Your task to perform on an android device: Go to Amazon Image 0: 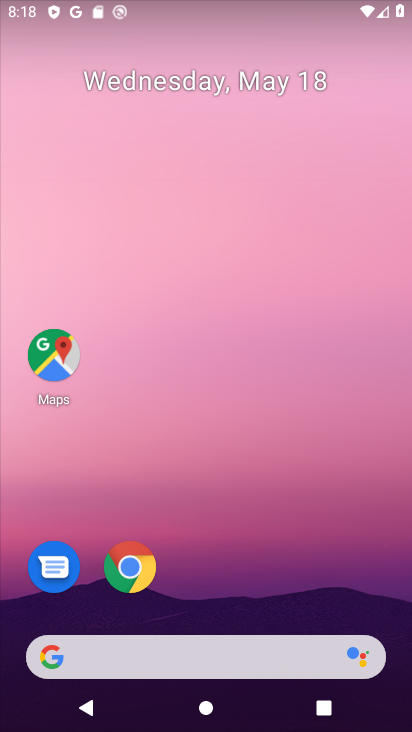
Step 0: drag from (254, 592) to (289, 3)
Your task to perform on an android device: Go to Amazon Image 1: 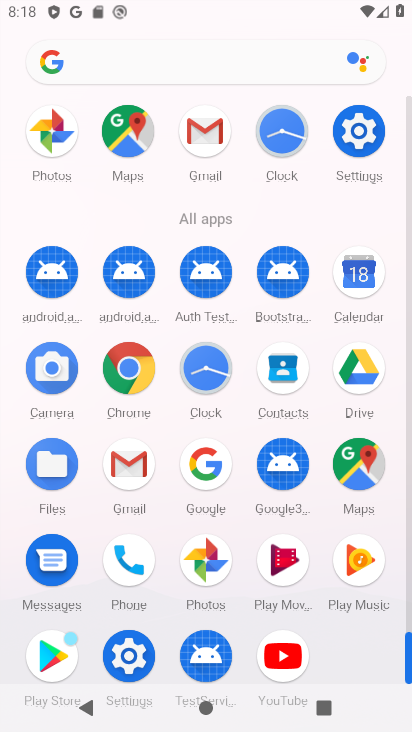
Step 1: drag from (10, 520) to (12, 456)
Your task to perform on an android device: Go to Amazon Image 2: 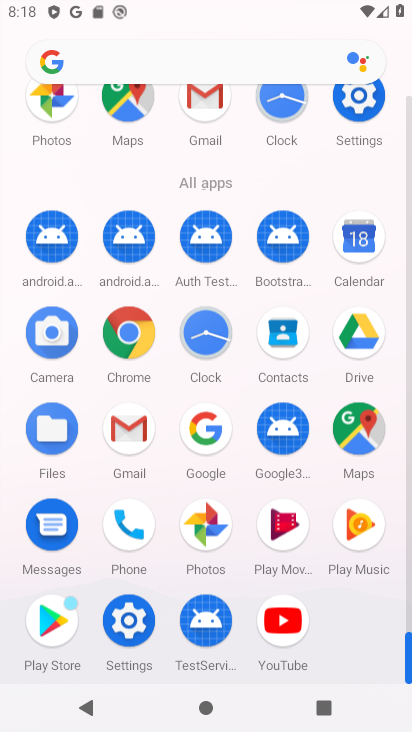
Step 2: click (21, 307)
Your task to perform on an android device: Go to Amazon Image 3: 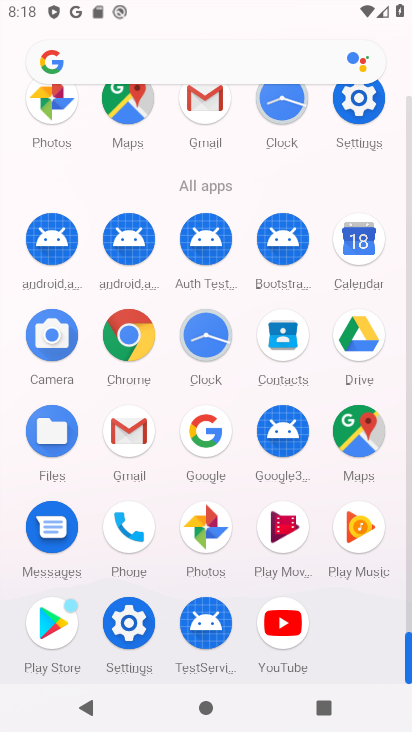
Step 3: click (129, 330)
Your task to perform on an android device: Go to Amazon Image 4: 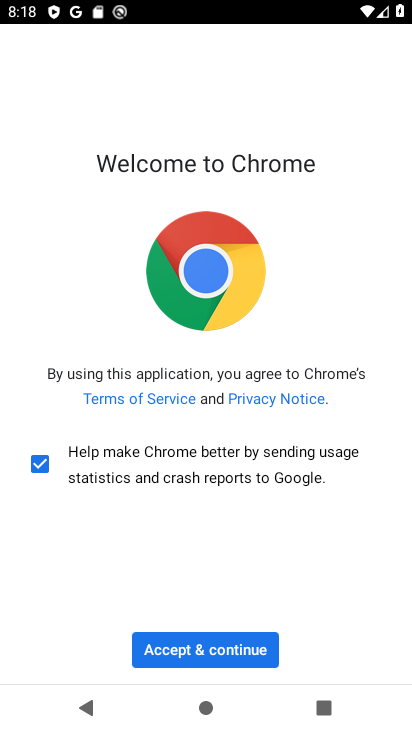
Step 4: click (183, 643)
Your task to perform on an android device: Go to Amazon Image 5: 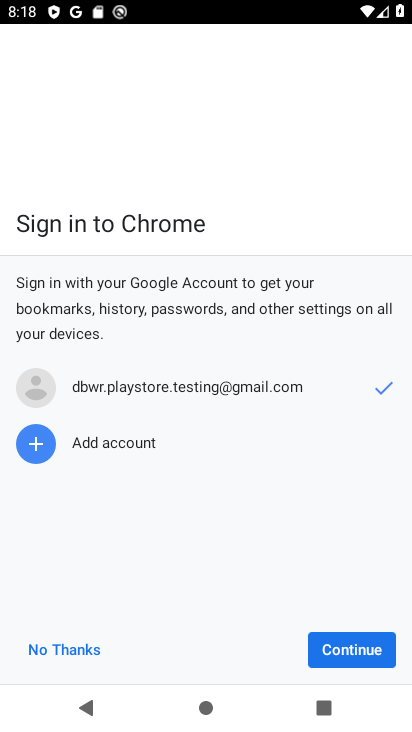
Step 5: click (344, 639)
Your task to perform on an android device: Go to Amazon Image 6: 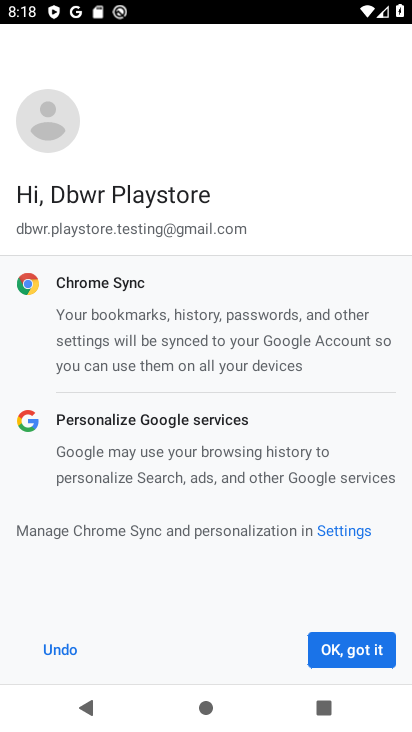
Step 6: click (344, 642)
Your task to perform on an android device: Go to Amazon Image 7: 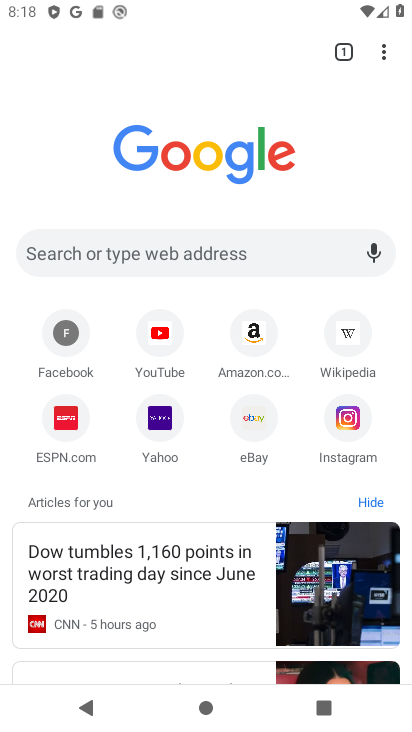
Step 7: click (257, 335)
Your task to perform on an android device: Go to Amazon Image 8: 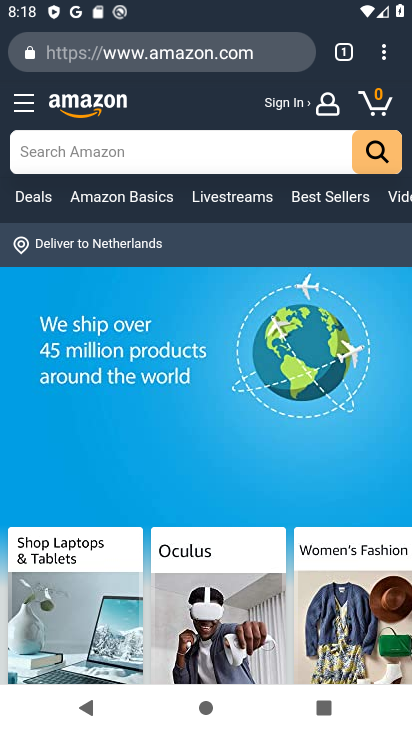
Step 8: task complete